Your task to perform on an android device: turn on javascript in the chrome app Image 0: 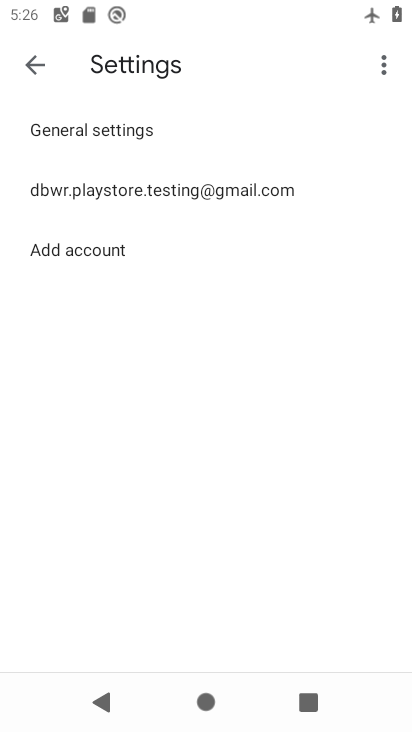
Step 0: press home button
Your task to perform on an android device: turn on javascript in the chrome app Image 1: 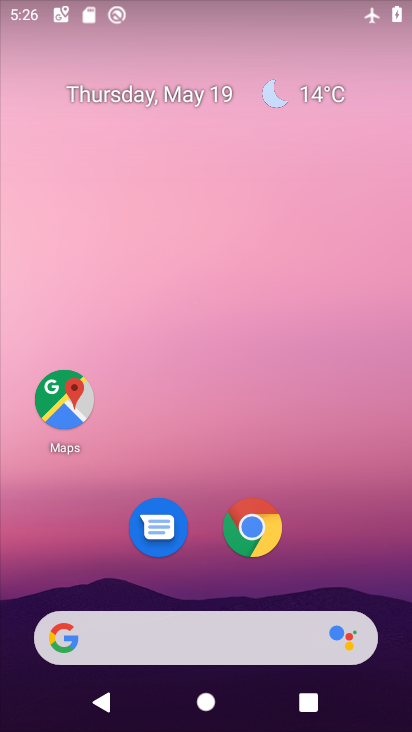
Step 1: drag from (330, 534) to (238, 15)
Your task to perform on an android device: turn on javascript in the chrome app Image 2: 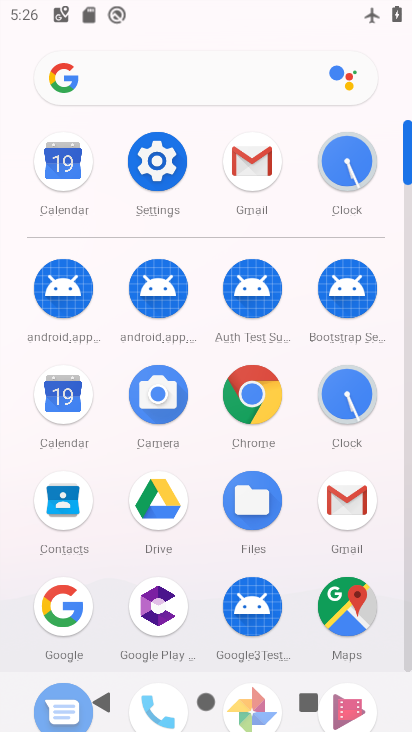
Step 2: click (251, 394)
Your task to perform on an android device: turn on javascript in the chrome app Image 3: 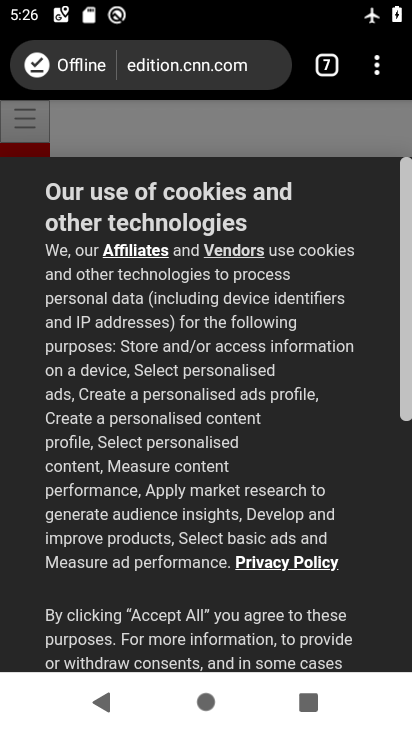
Step 3: click (370, 73)
Your task to perform on an android device: turn on javascript in the chrome app Image 4: 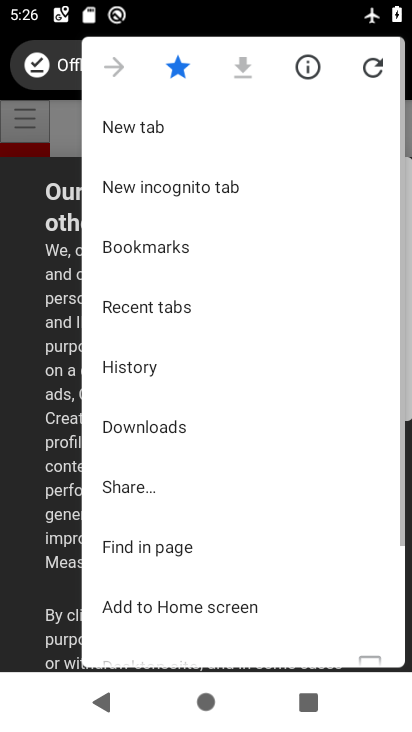
Step 4: drag from (238, 322) to (190, 85)
Your task to perform on an android device: turn on javascript in the chrome app Image 5: 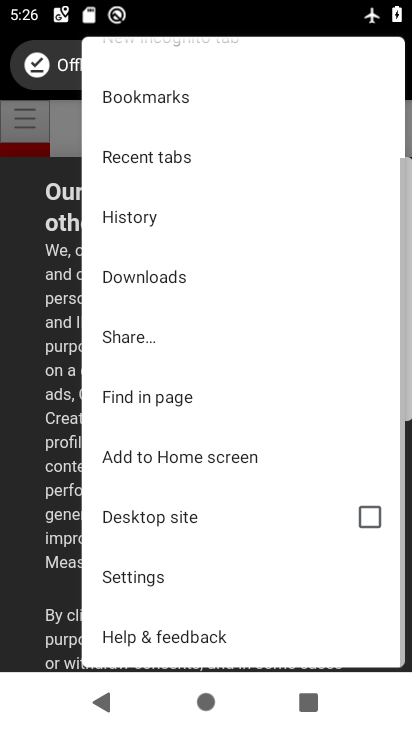
Step 5: click (189, 580)
Your task to perform on an android device: turn on javascript in the chrome app Image 6: 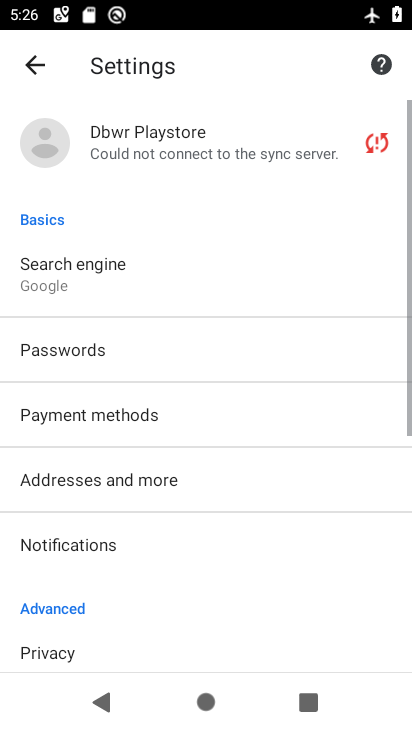
Step 6: drag from (254, 582) to (237, 172)
Your task to perform on an android device: turn on javascript in the chrome app Image 7: 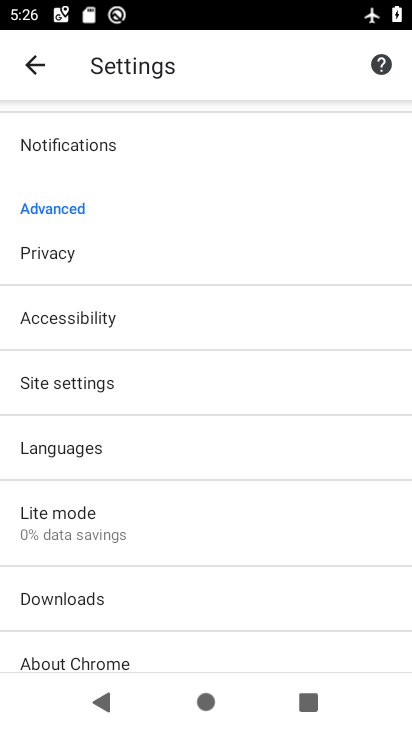
Step 7: click (118, 393)
Your task to perform on an android device: turn on javascript in the chrome app Image 8: 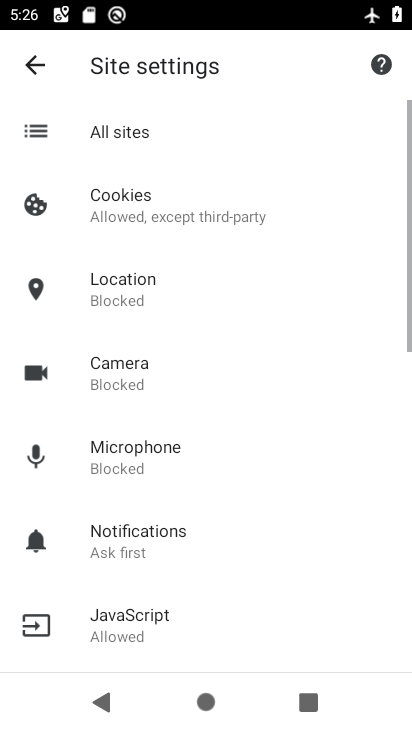
Step 8: drag from (269, 577) to (259, 262)
Your task to perform on an android device: turn on javascript in the chrome app Image 9: 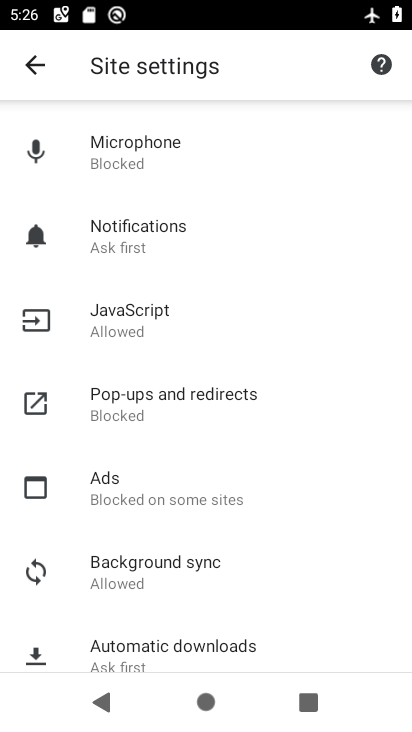
Step 9: click (169, 328)
Your task to perform on an android device: turn on javascript in the chrome app Image 10: 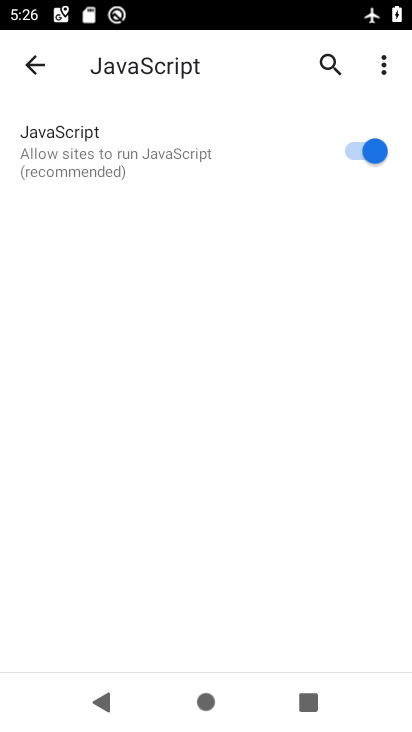
Step 10: task complete